Your task to perform on an android device: empty trash in google photos Image 0: 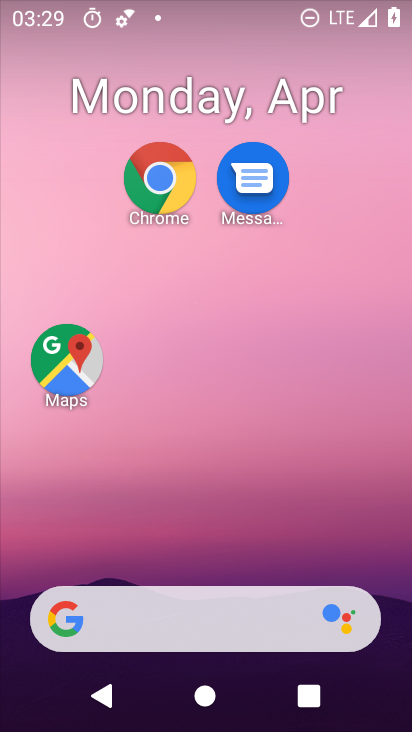
Step 0: drag from (243, 551) to (257, 58)
Your task to perform on an android device: empty trash in google photos Image 1: 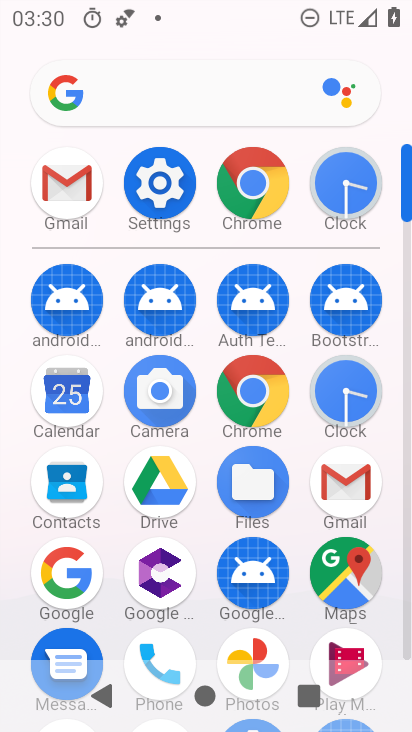
Step 1: drag from (292, 608) to (299, 78)
Your task to perform on an android device: empty trash in google photos Image 2: 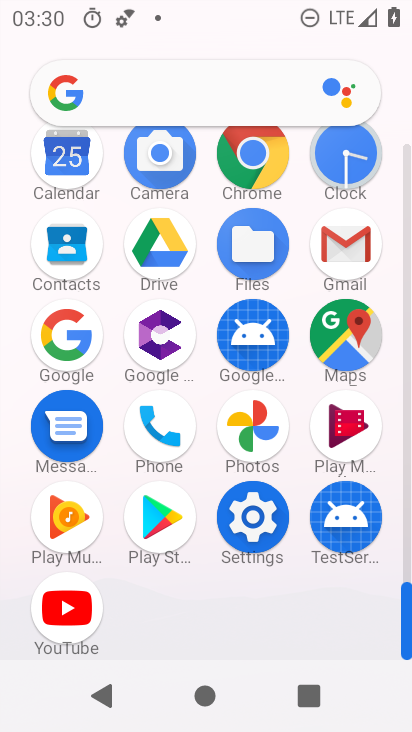
Step 2: click (255, 437)
Your task to perform on an android device: empty trash in google photos Image 3: 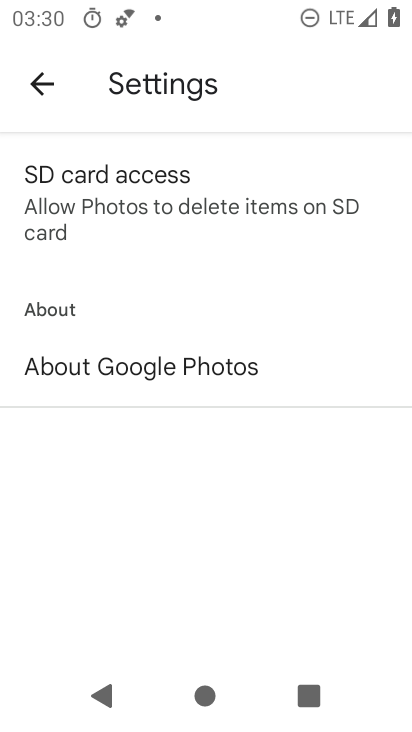
Step 3: press home button
Your task to perform on an android device: empty trash in google photos Image 4: 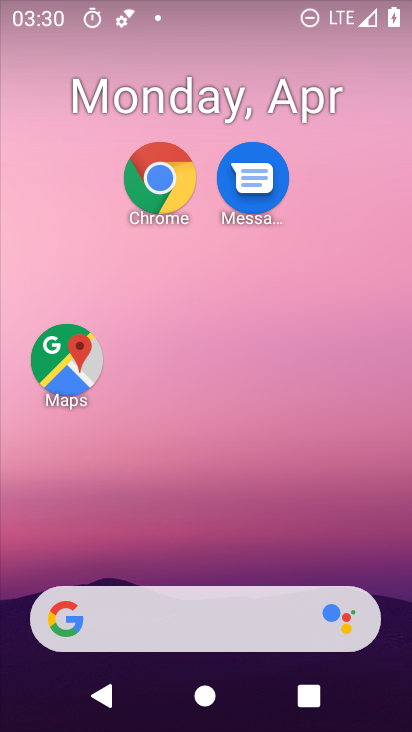
Step 4: drag from (243, 587) to (320, 15)
Your task to perform on an android device: empty trash in google photos Image 5: 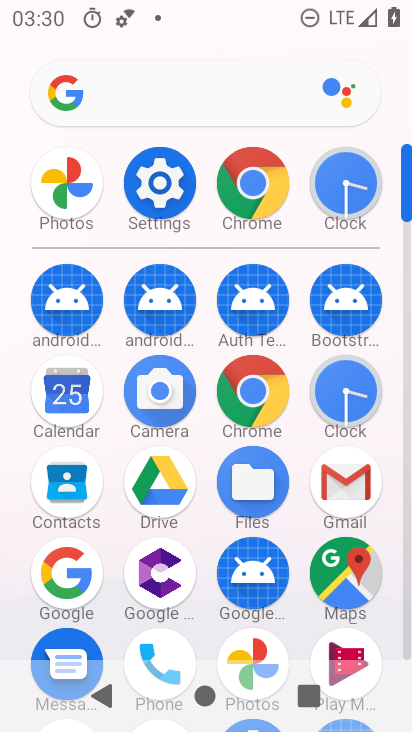
Step 5: drag from (293, 631) to (298, 216)
Your task to perform on an android device: empty trash in google photos Image 6: 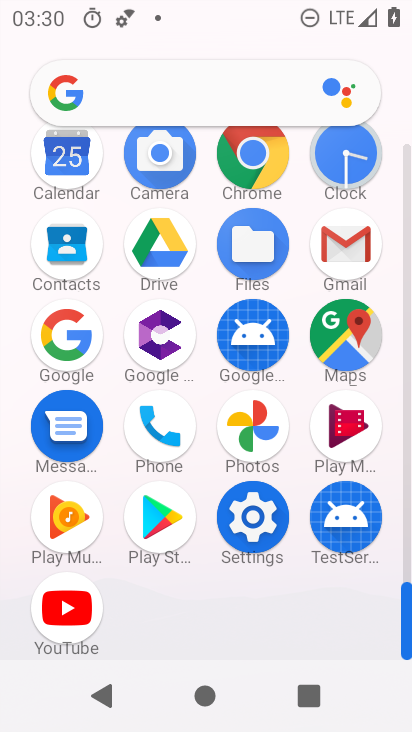
Step 6: click (258, 433)
Your task to perform on an android device: empty trash in google photos Image 7: 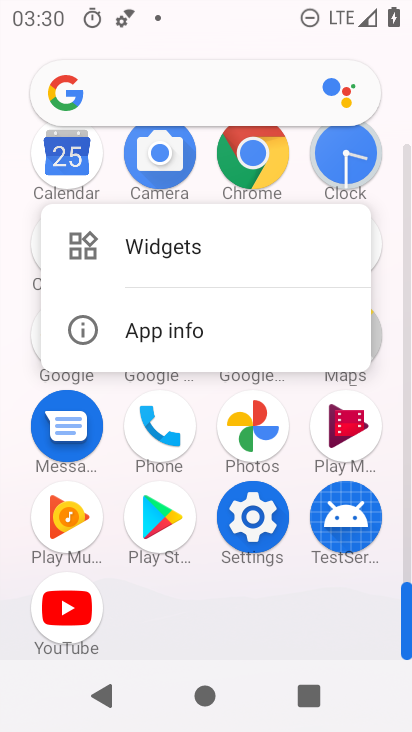
Step 7: click (258, 433)
Your task to perform on an android device: empty trash in google photos Image 8: 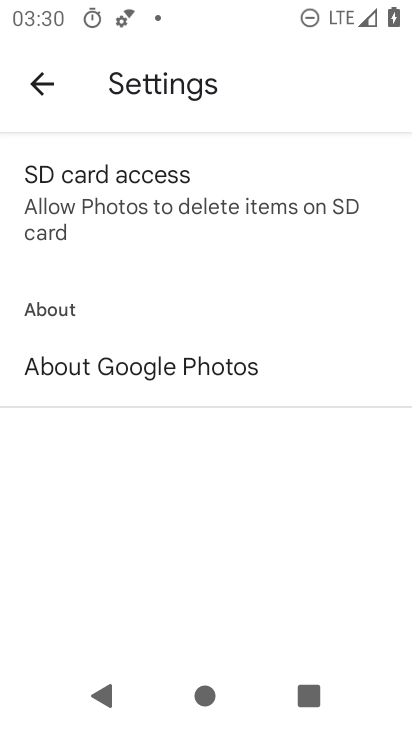
Step 8: press back button
Your task to perform on an android device: empty trash in google photos Image 9: 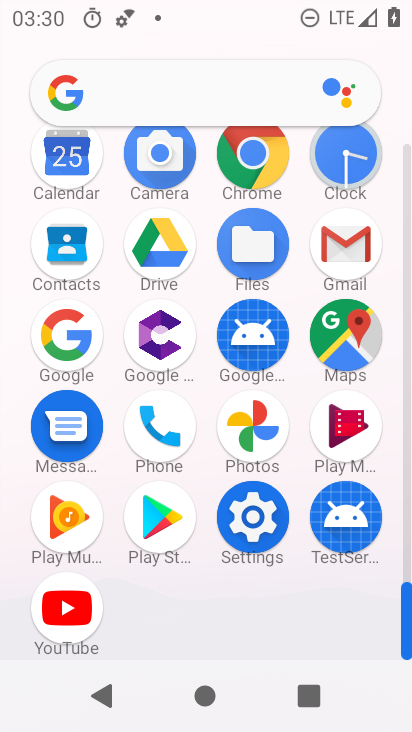
Step 9: click (261, 426)
Your task to perform on an android device: empty trash in google photos Image 10: 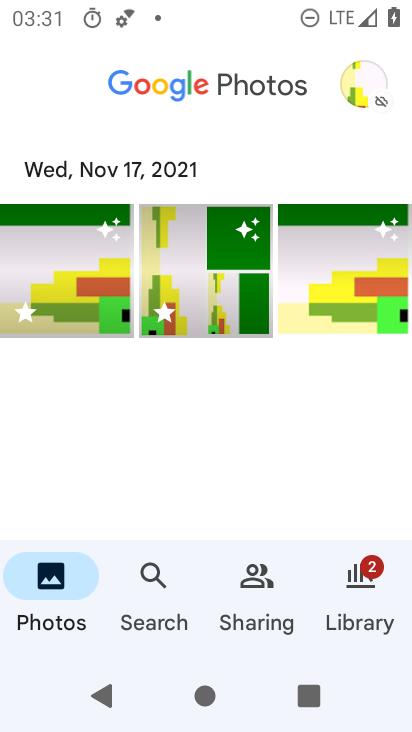
Step 10: click (371, 76)
Your task to perform on an android device: empty trash in google photos Image 11: 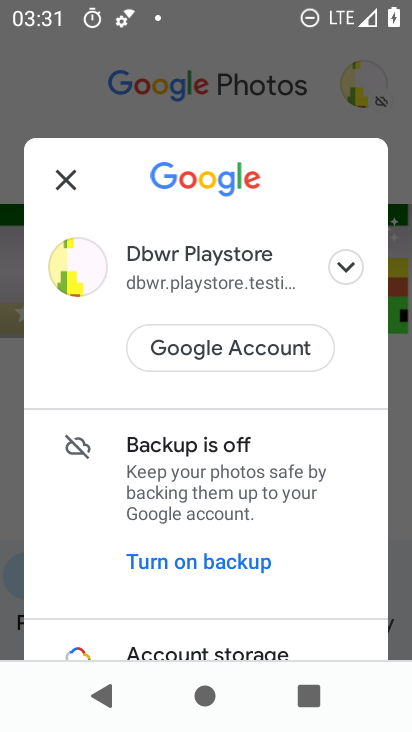
Step 11: drag from (286, 604) to (301, 104)
Your task to perform on an android device: empty trash in google photos Image 12: 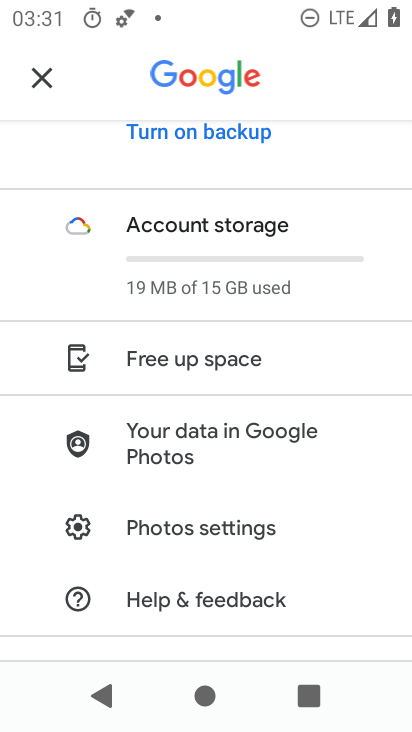
Step 12: drag from (330, 162) to (319, 615)
Your task to perform on an android device: empty trash in google photos Image 13: 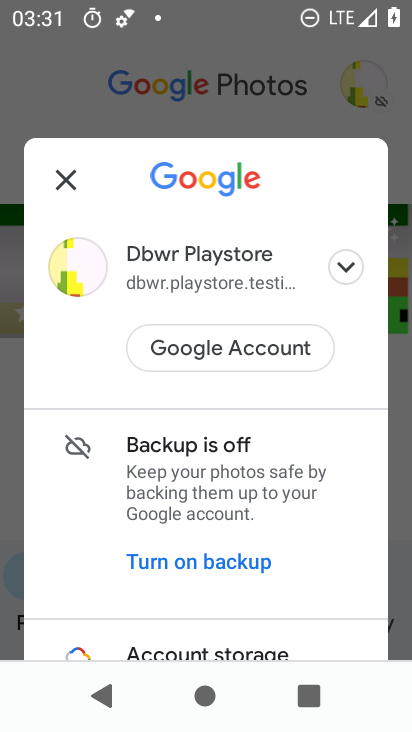
Step 13: drag from (279, 569) to (322, 169)
Your task to perform on an android device: empty trash in google photos Image 14: 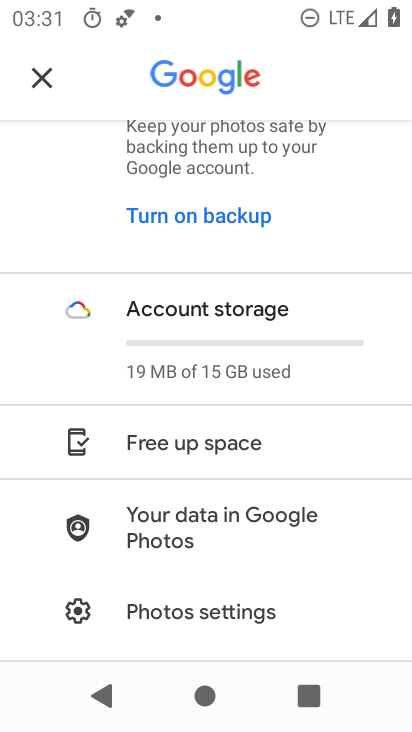
Step 14: drag from (321, 195) to (335, 626)
Your task to perform on an android device: empty trash in google photos Image 15: 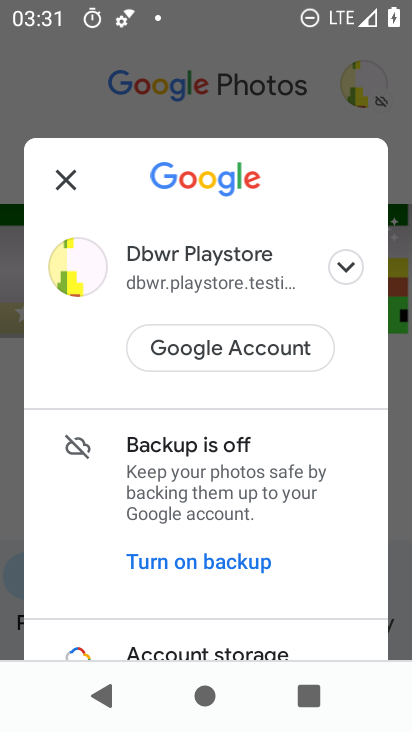
Step 15: click (65, 176)
Your task to perform on an android device: empty trash in google photos Image 16: 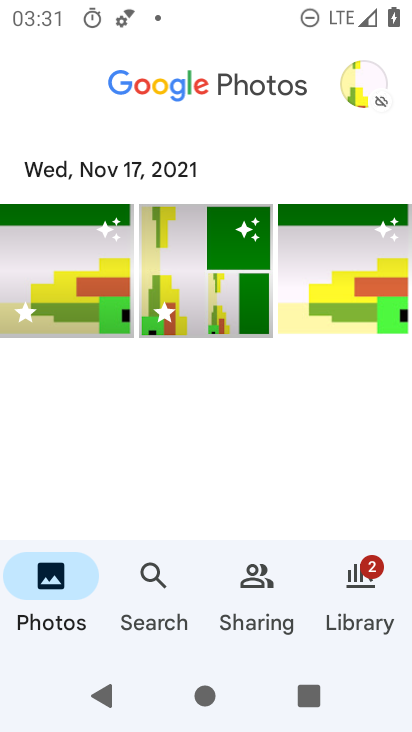
Step 16: click (353, 584)
Your task to perform on an android device: empty trash in google photos Image 17: 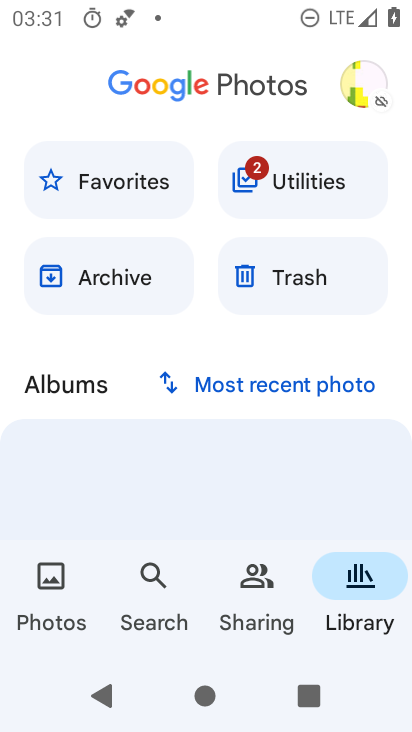
Step 17: click (306, 253)
Your task to perform on an android device: empty trash in google photos Image 18: 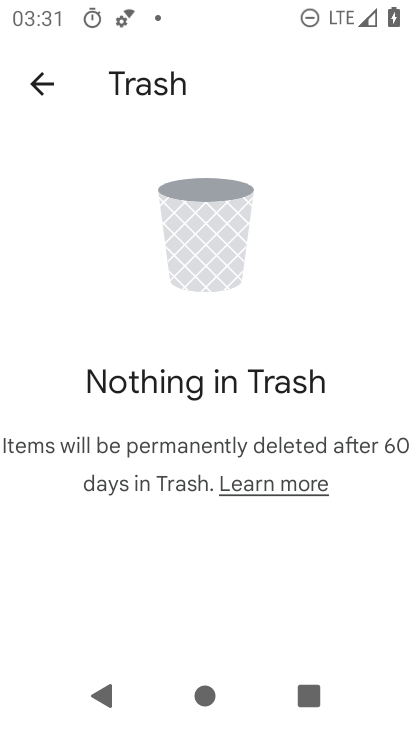
Step 18: task complete